Your task to perform on an android device: turn on sleep mode Image 0: 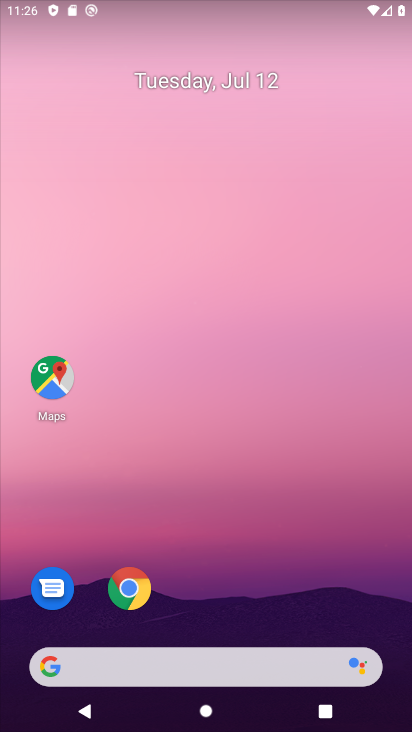
Step 0: drag from (193, 587) to (193, 257)
Your task to perform on an android device: turn on sleep mode Image 1: 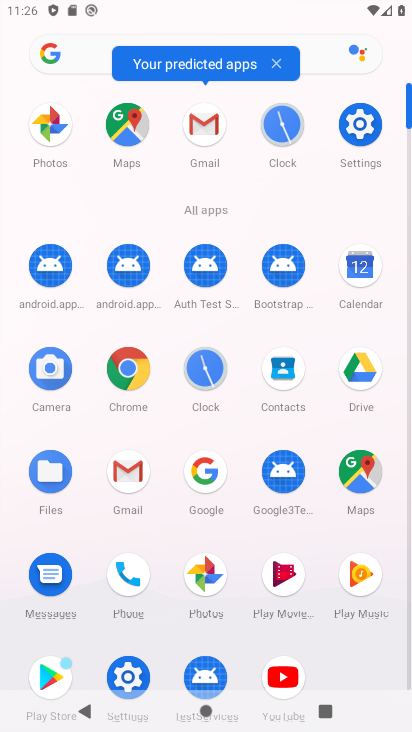
Step 1: click (361, 130)
Your task to perform on an android device: turn on sleep mode Image 2: 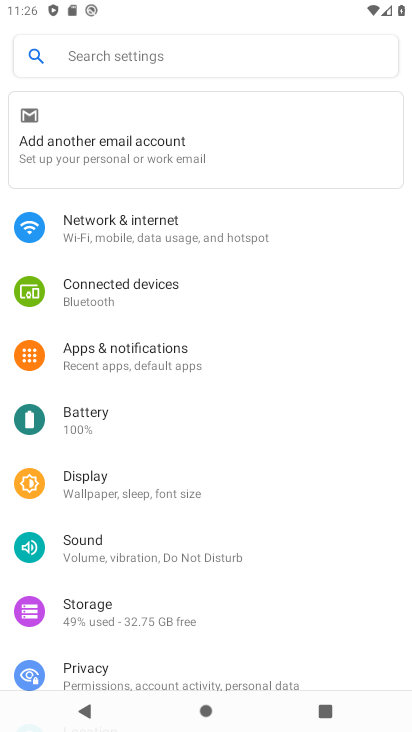
Step 2: click (111, 478)
Your task to perform on an android device: turn on sleep mode Image 3: 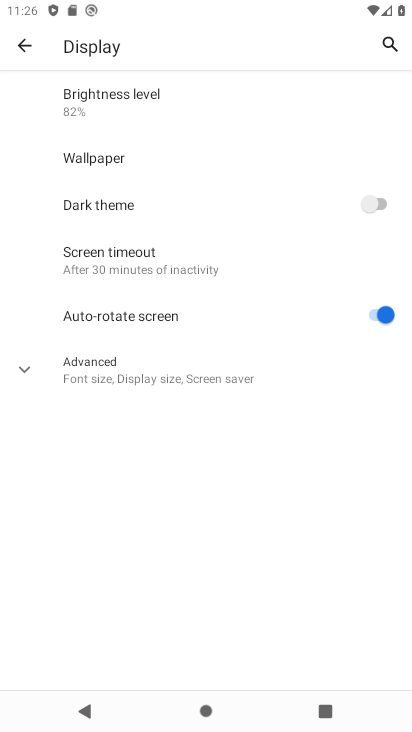
Step 3: click (98, 261)
Your task to perform on an android device: turn on sleep mode Image 4: 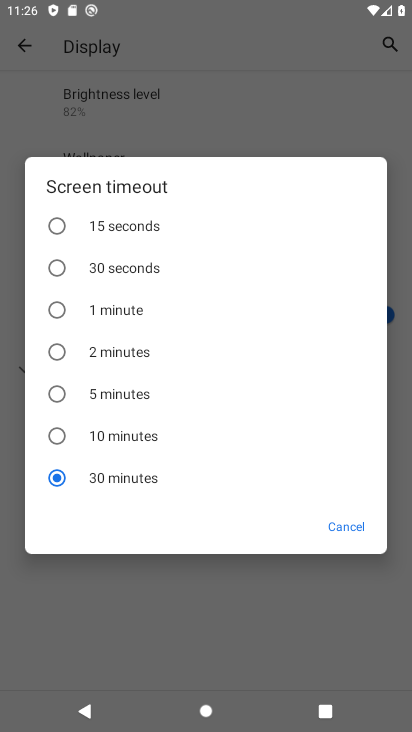
Step 4: click (120, 269)
Your task to perform on an android device: turn on sleep mode Image 5: 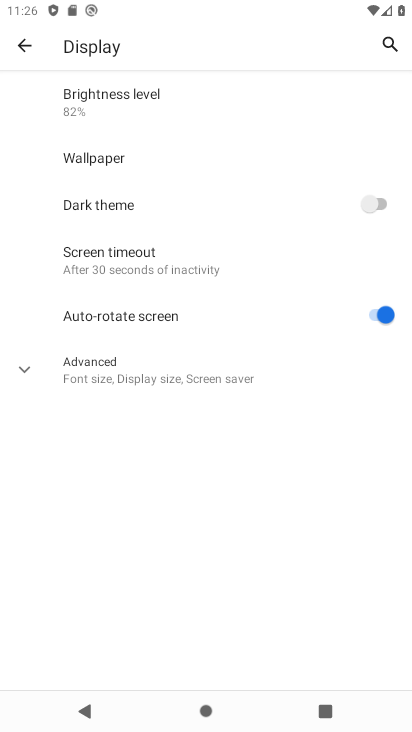
Step 5: task complete